Your task to perform on an android device: Add usb-c to usb-b to the cart on bestbuy.com, then select checkout. Image 0: 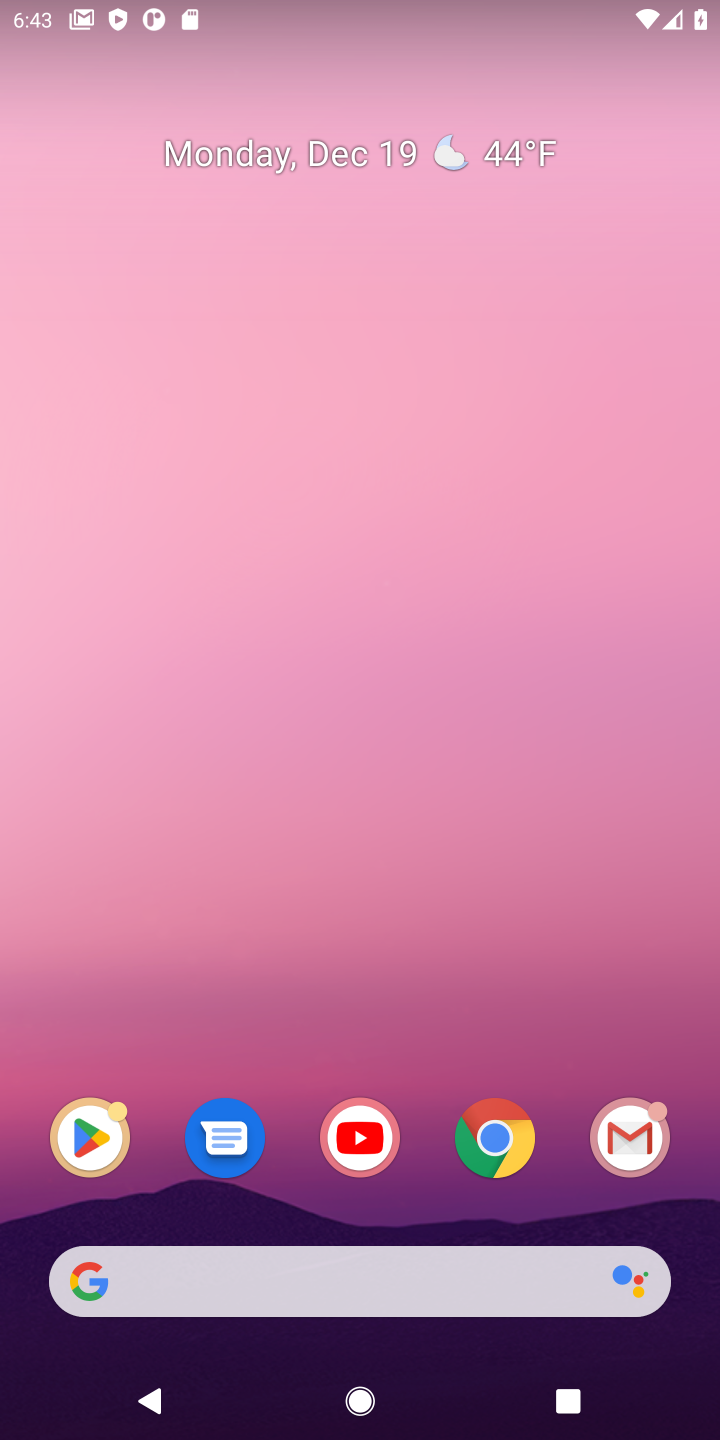
Step 0: click (469, 1129)
Your task to perform on an android device: Add usb-c to usb-b to the cart on bestbuy.com, then select checkout. Image 1: 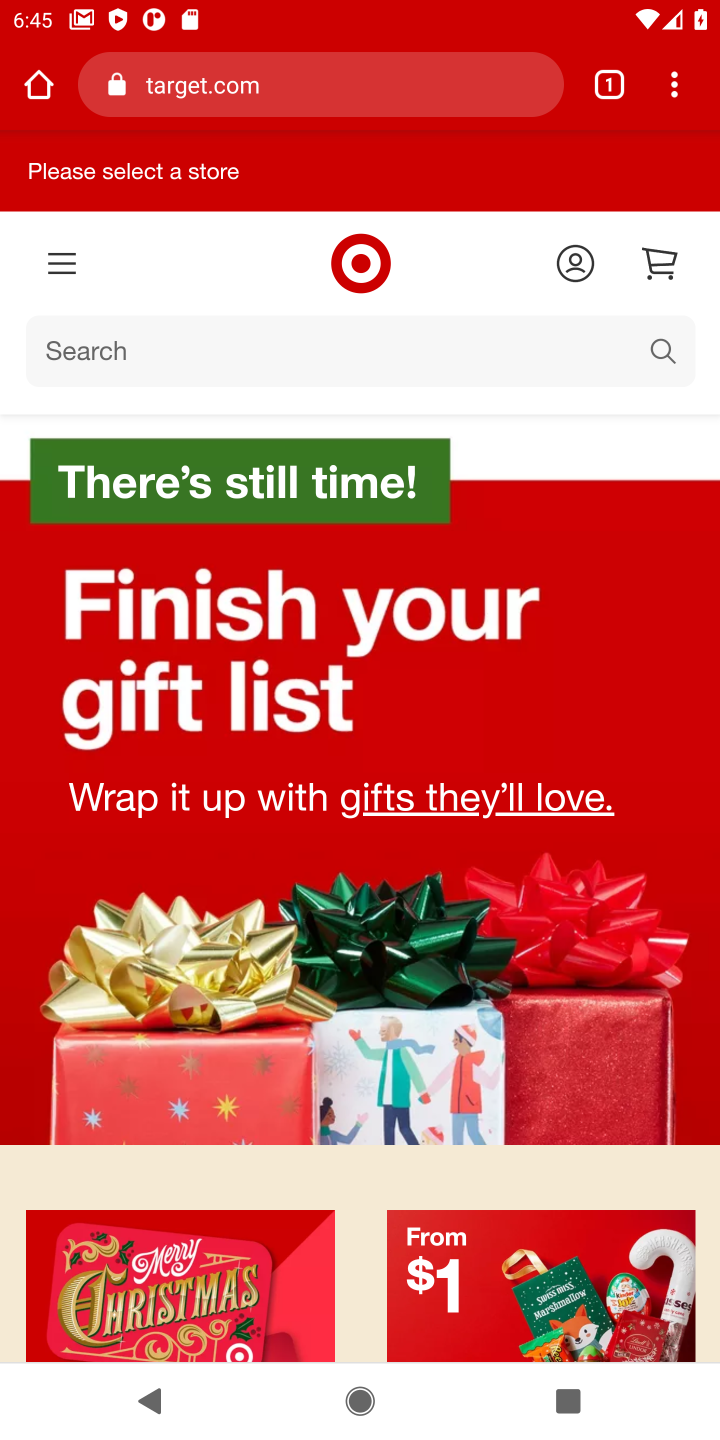
Step 1: click (492, 354)
Your task to perform on an android device: Add usb-c to usb-b to the cart on bestbuy.com, then select checkout. Image 2: 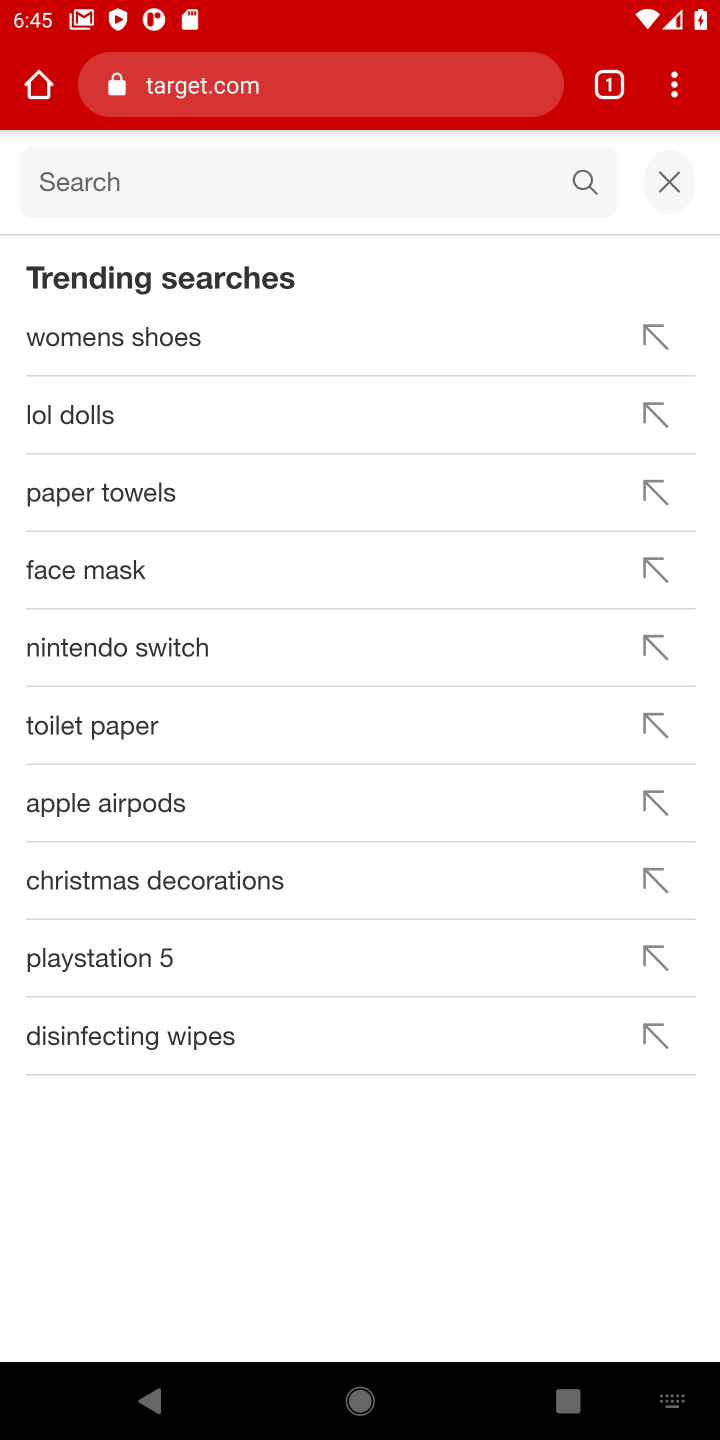
Step 2: click (321, 97)
Your task to perform on an android device: Add usb-c to usb-b to the cart on bestbuy.com, then select checkout. Image 3: 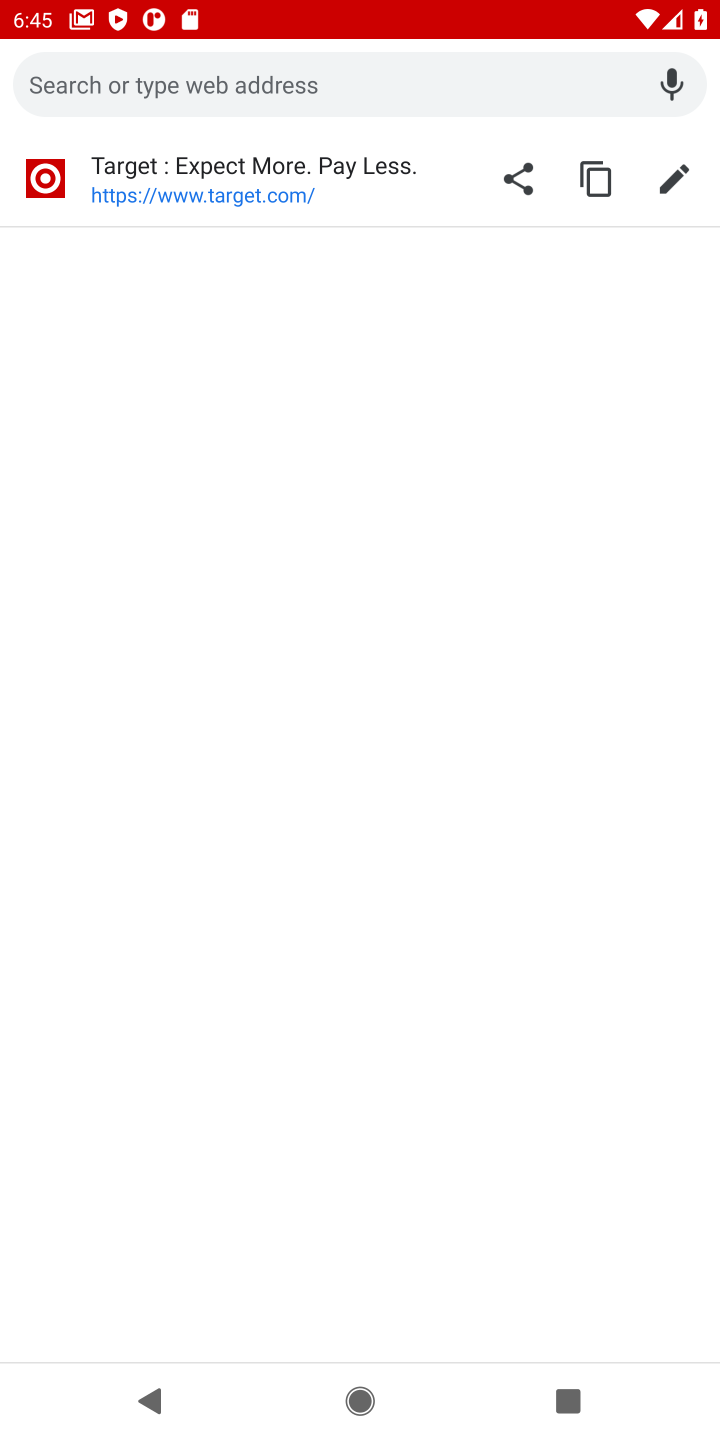
Step 3: type "bestbuy"
Your task to perform on an android device: Add usb-c to usb-b to the cart on bestbuy.com, then select checkout. Image 4: 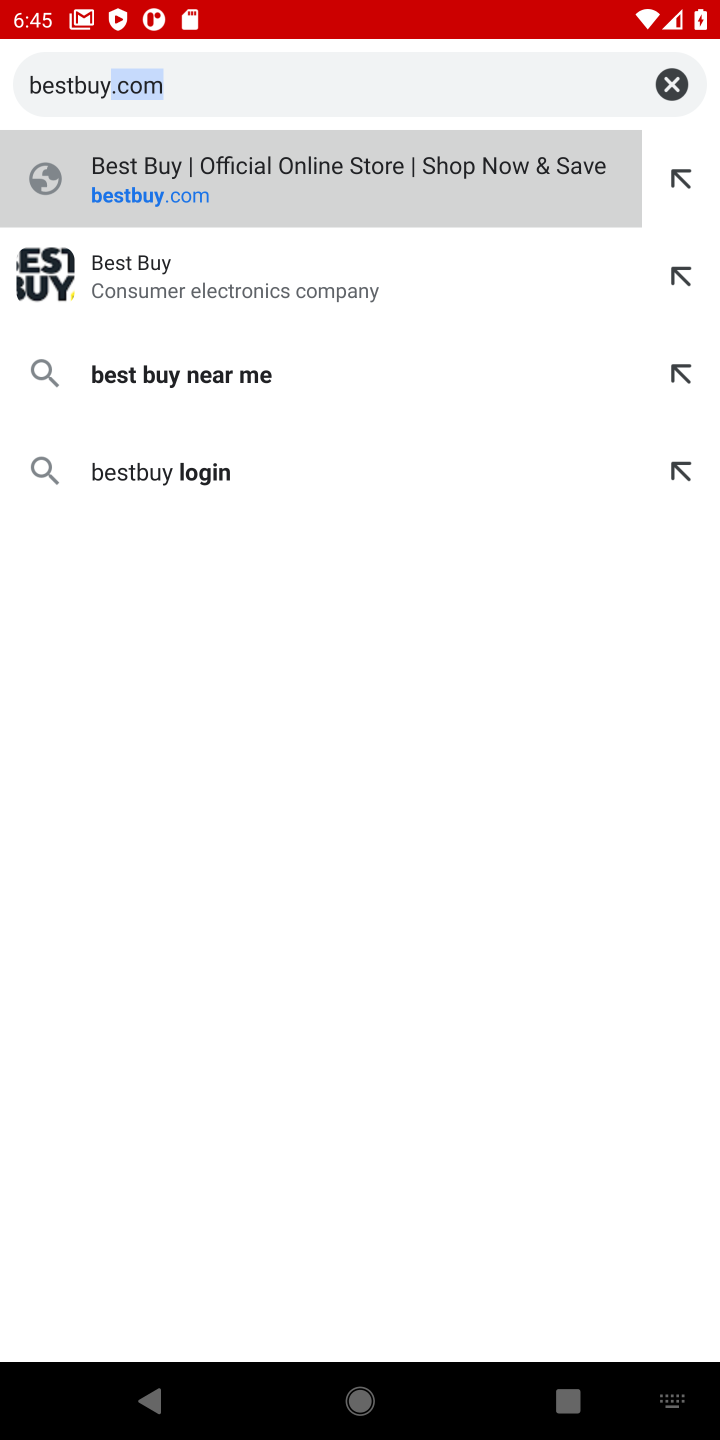
Step 4: click (425, 170)
Your task to perform on an android device: Add usb-c to usb-b to the cart on bestbuy.com, then select checkout. Image 5: 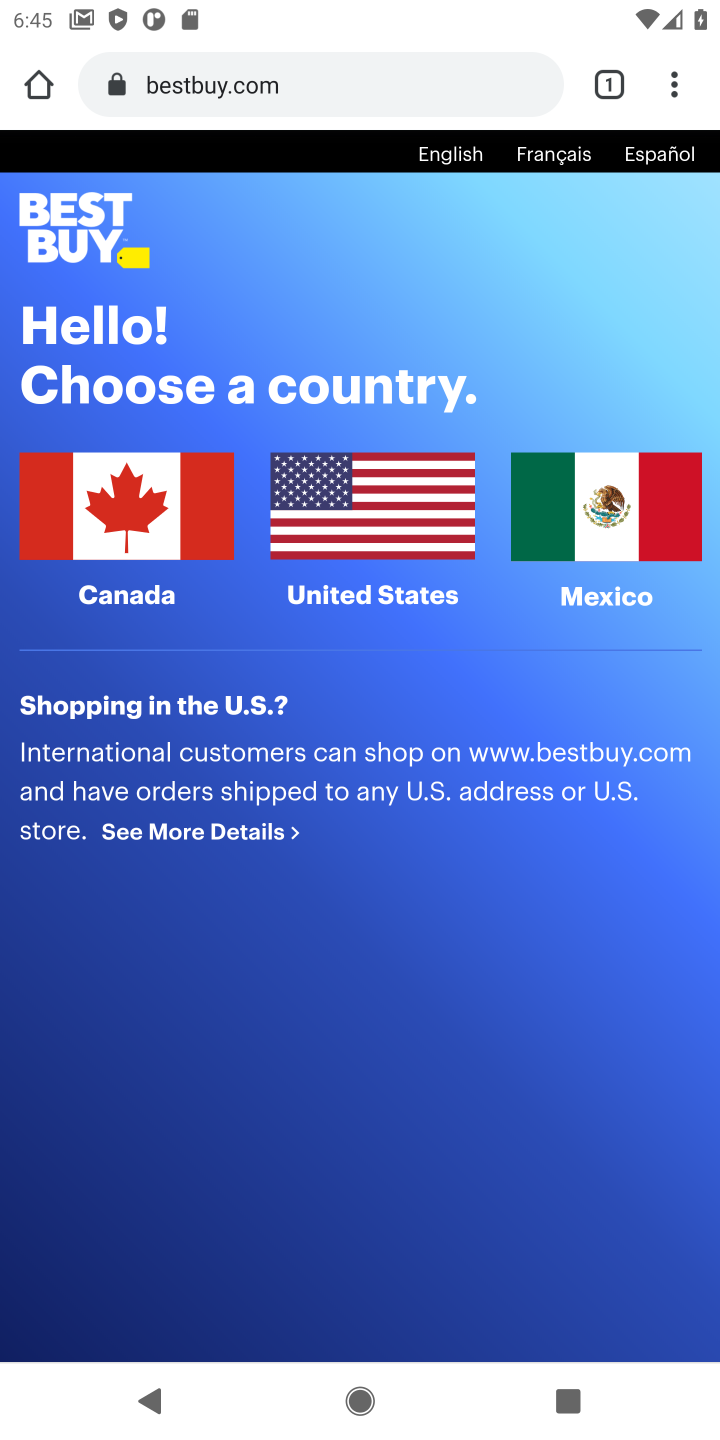
Step 5: click (364, 485)
Your task to perform on an android device: Add usb-c to usb-b to the cart on bestbuy.com, then select checkout. Image 6: 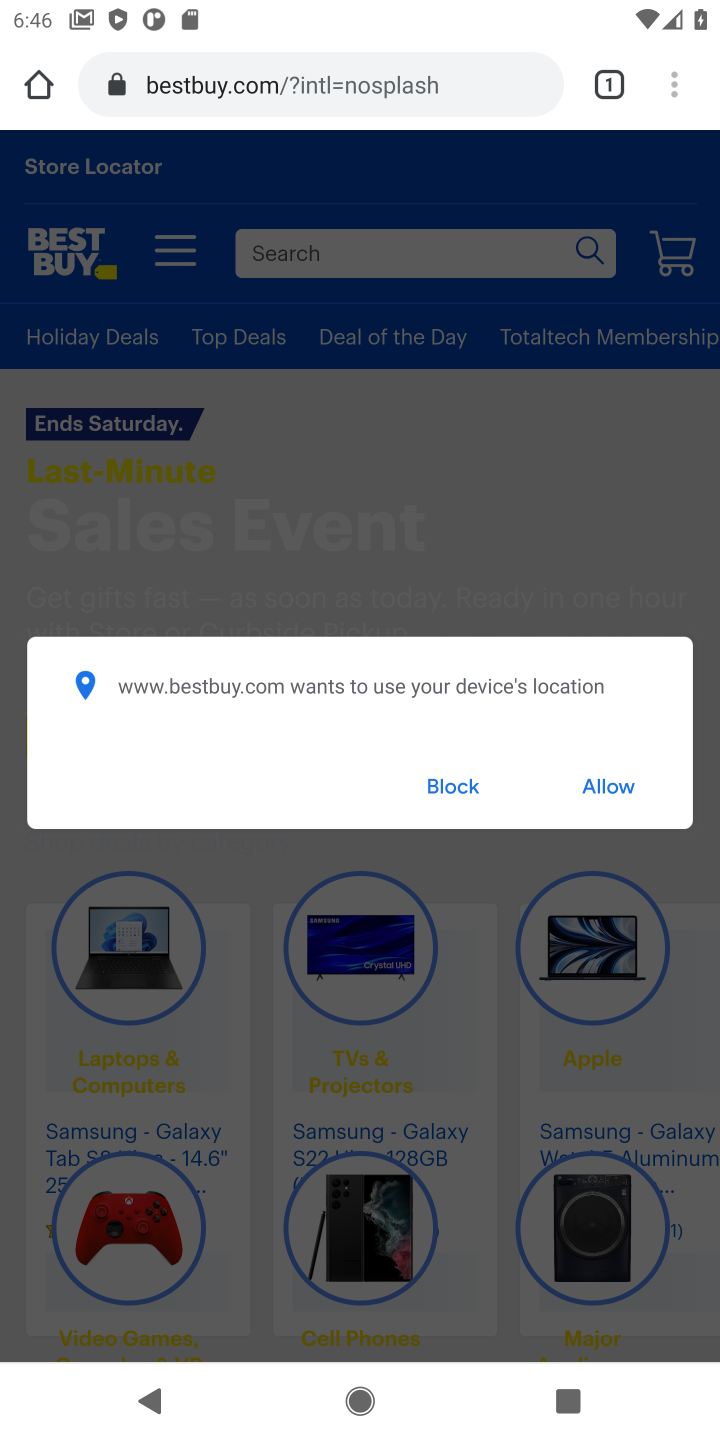
Step 6: click (445, 777)
Your task to perform on an android device: Add usb-c to usb-b to the cart on bestbuy.com, then select checkout. Image 7: 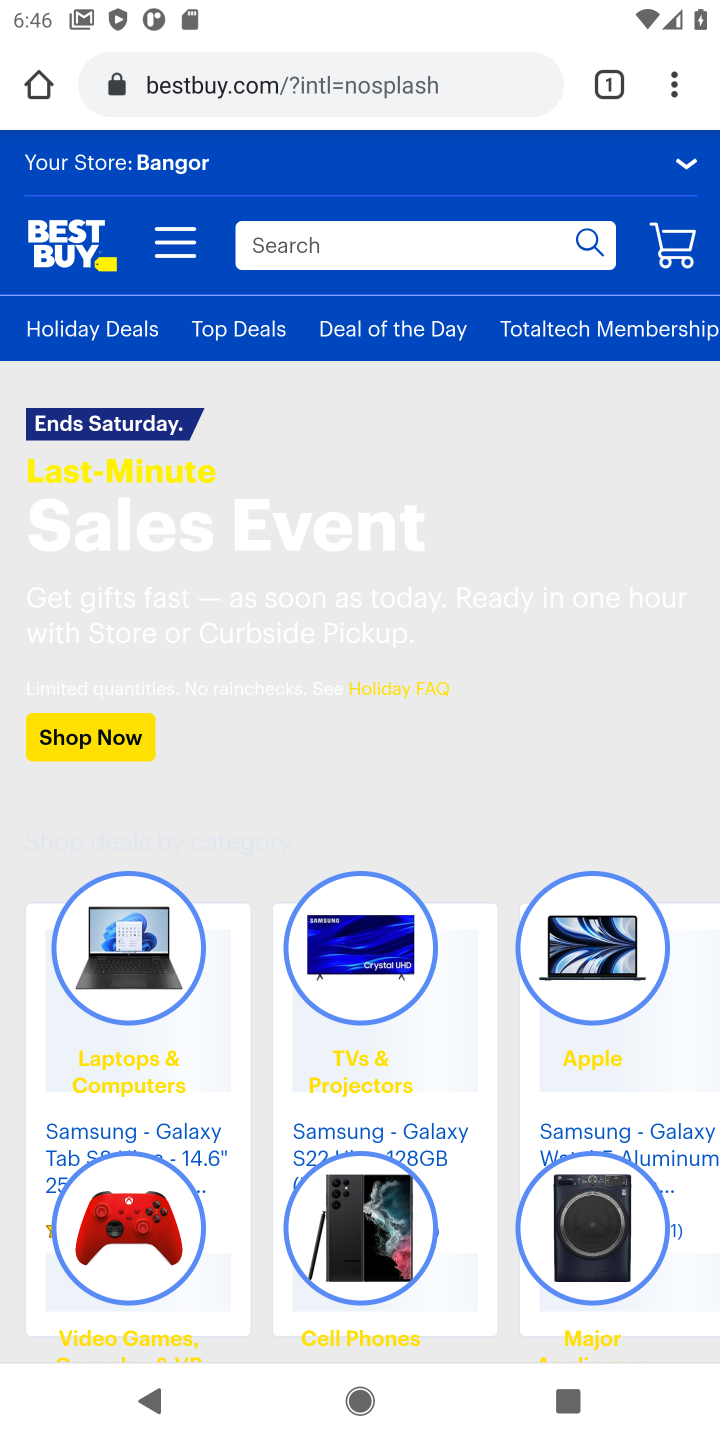
Step 7: click (368, 244)
Your task to perform on an android device: Add usb-c to usb-b to the cart on bestbuy.com, then select checkout. Image 8: 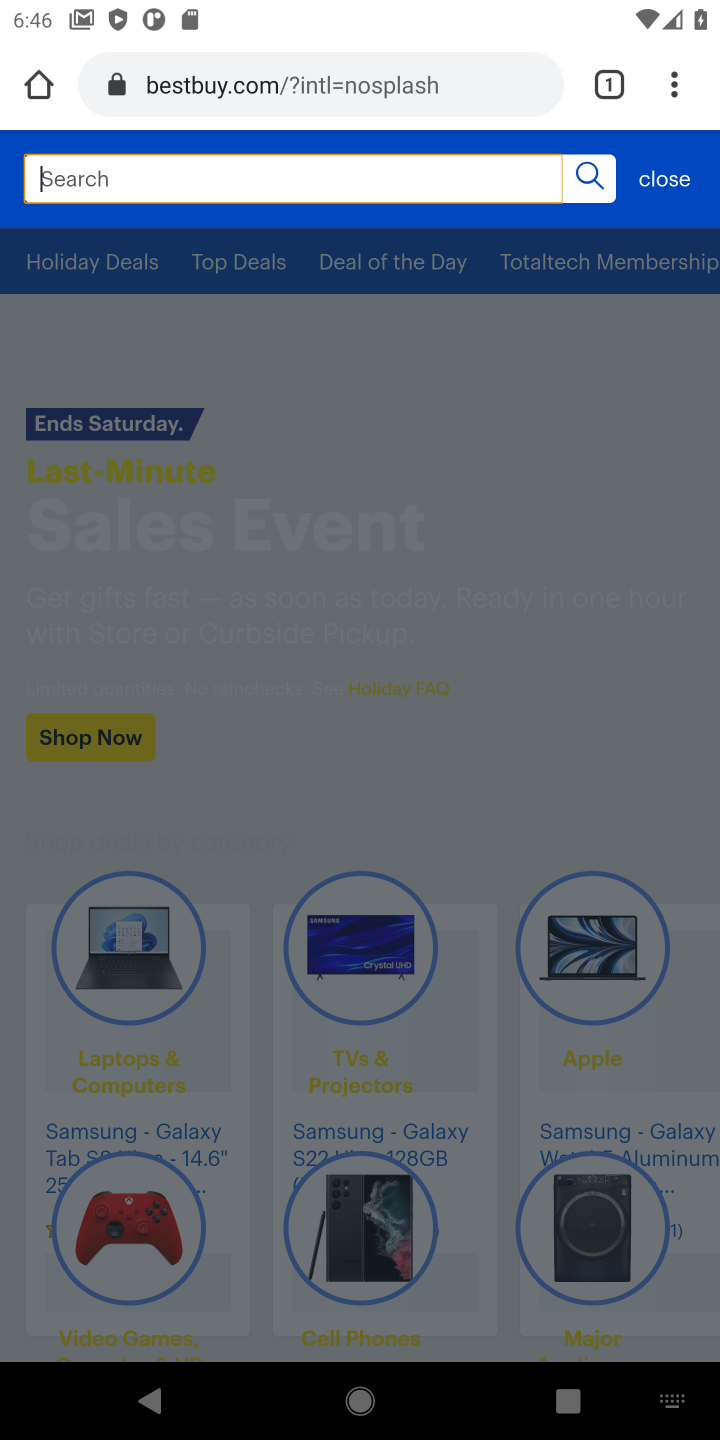
Step 8: type "usb-c to usb-b"
Your task to perform on an android device: Add usb-c to usb-b to the cart on bestbuy.com, then select checkout. Image 9: 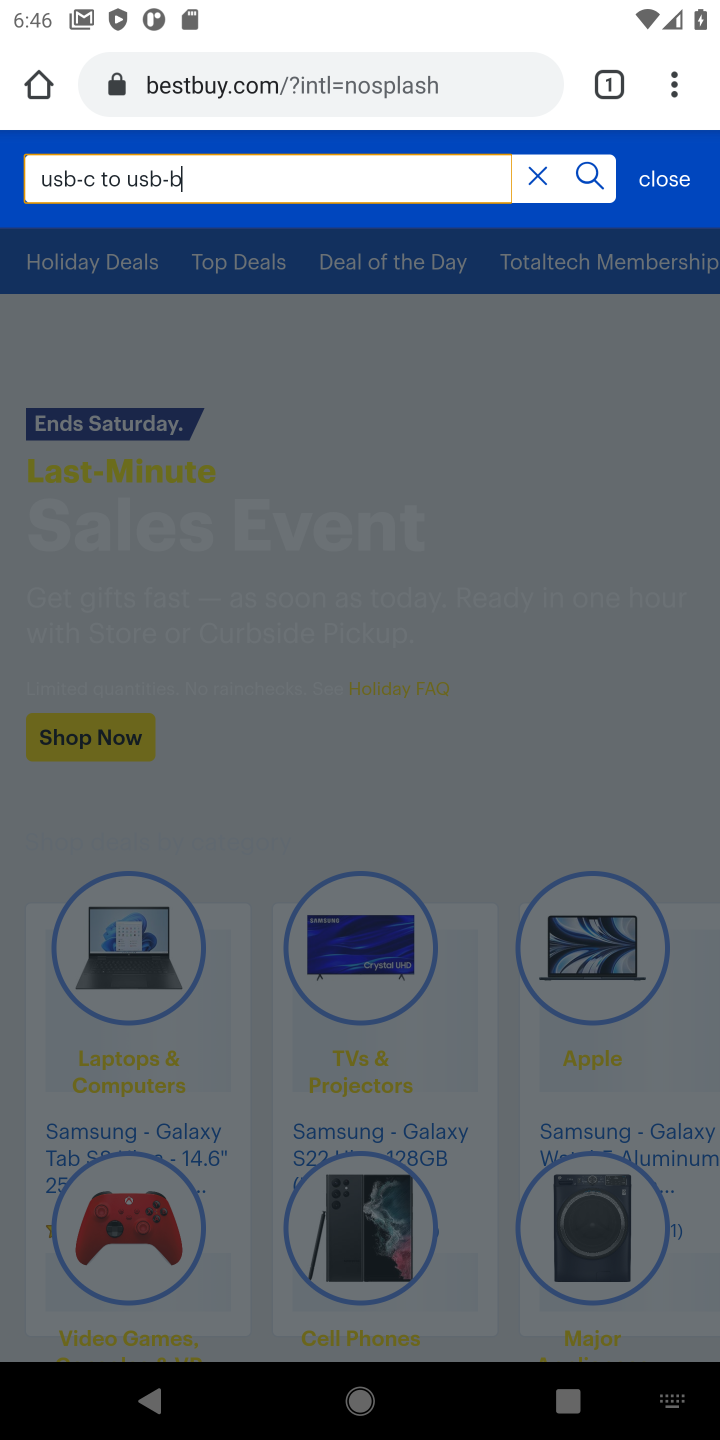
Step 9: click (586, 172)
Your task to perform on an android device: Add usb-c to usb-b to the cart on bestbuy.com, then select checkout. Image 10: 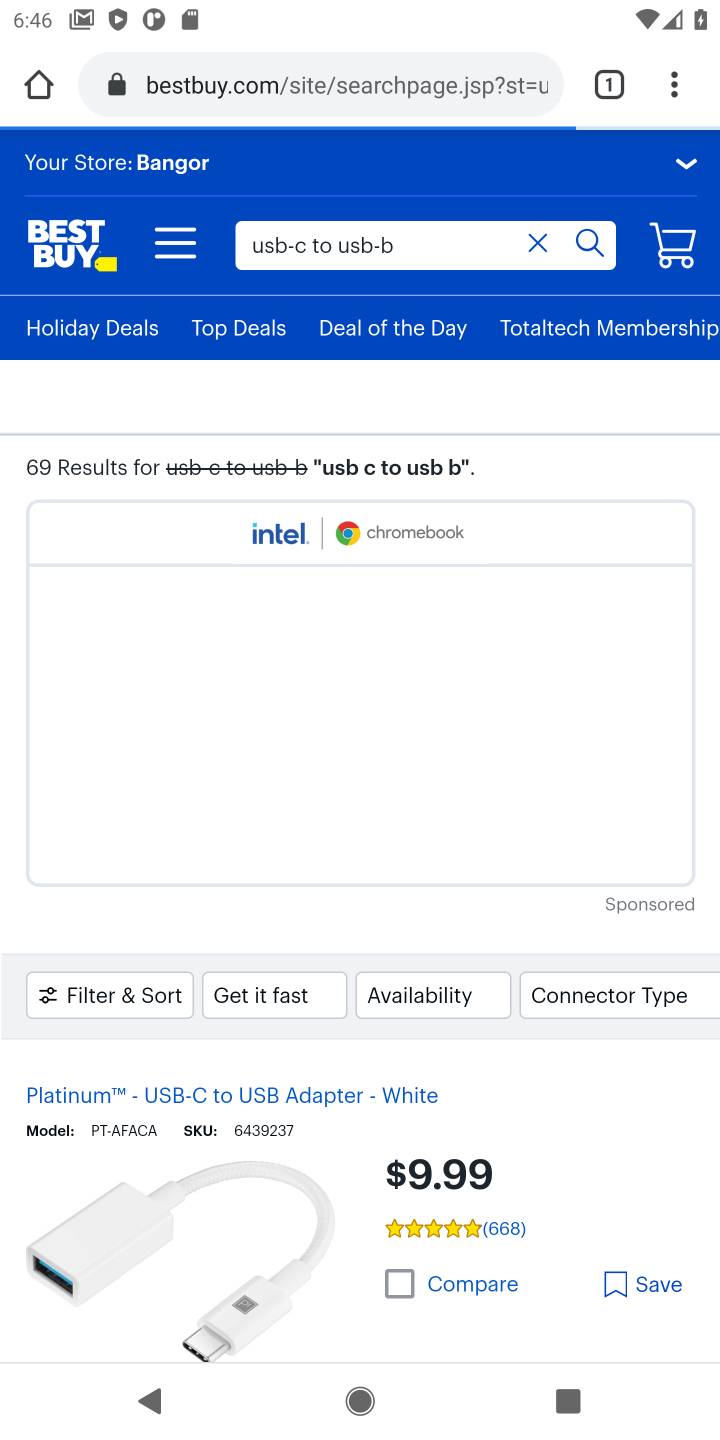
Step 10: click (549, 1202)
Your task to perform on an android device: Add usb-c to usb-b to the cart on bestbuy.com, then select checkout. Image 11: 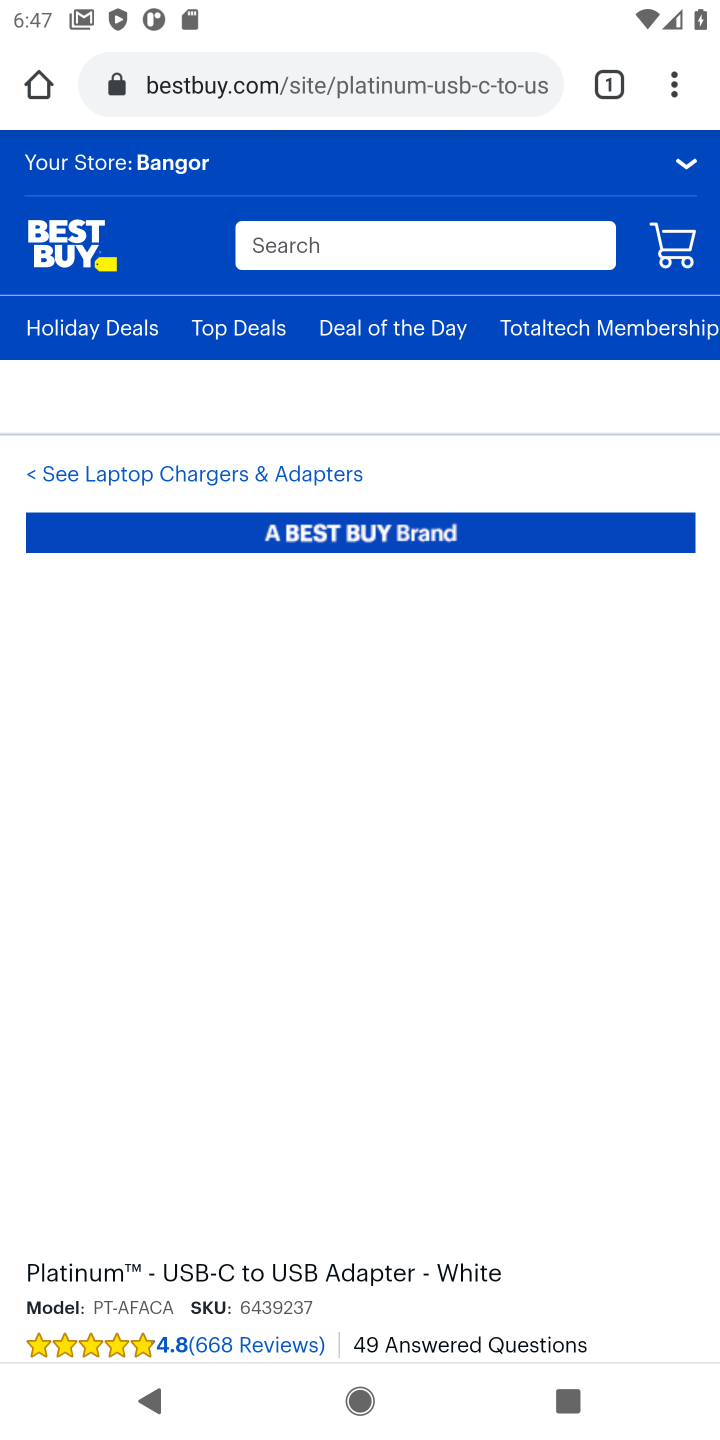
Step 11: drag from (414, 1293) to (405, 454)
Your task to perform on an android device: Add usb-c to usb-b to the cart on bestbuy.com, then select checkout. Image 12: 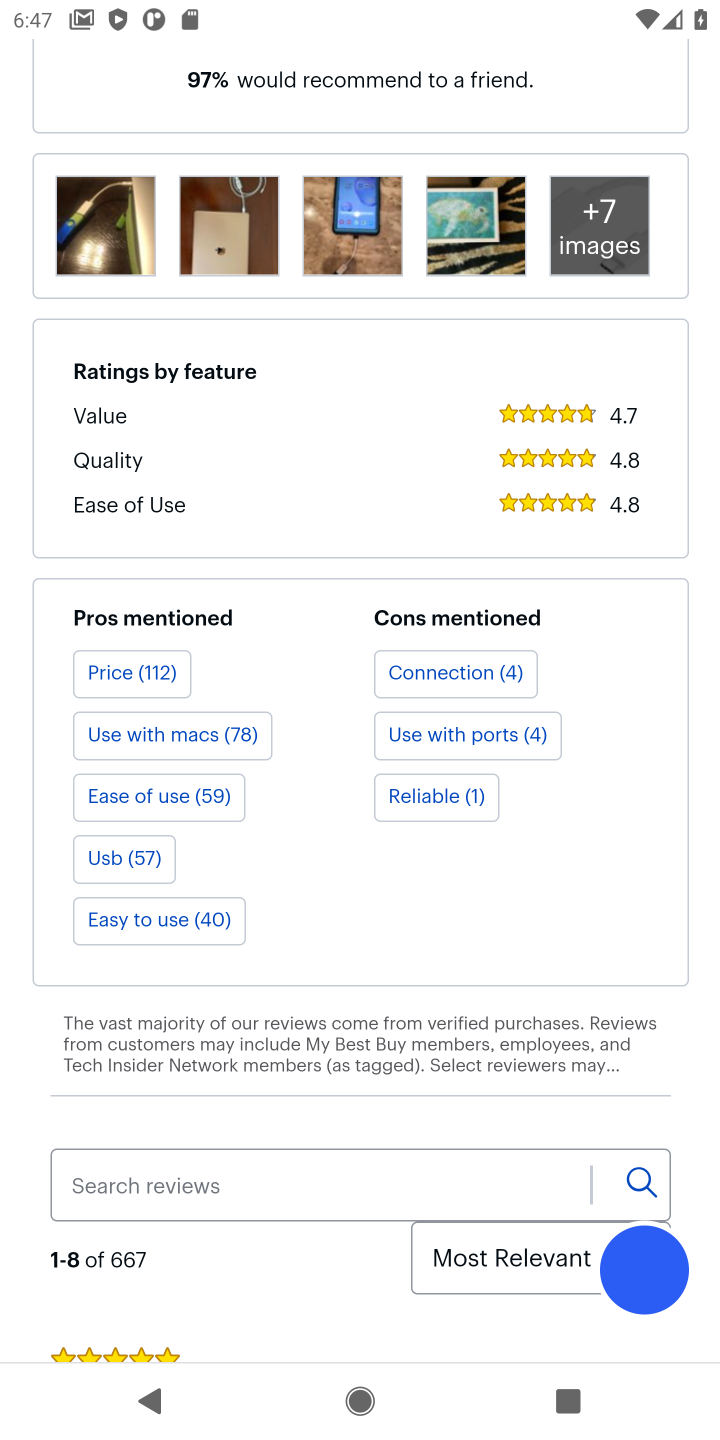
Step 12: drag from (348, 1269) to (333, 312)
Your task to perform on an android device: Add usb-c to usb-b to the cart on bestbuy.com, then select checkout. Image 13: 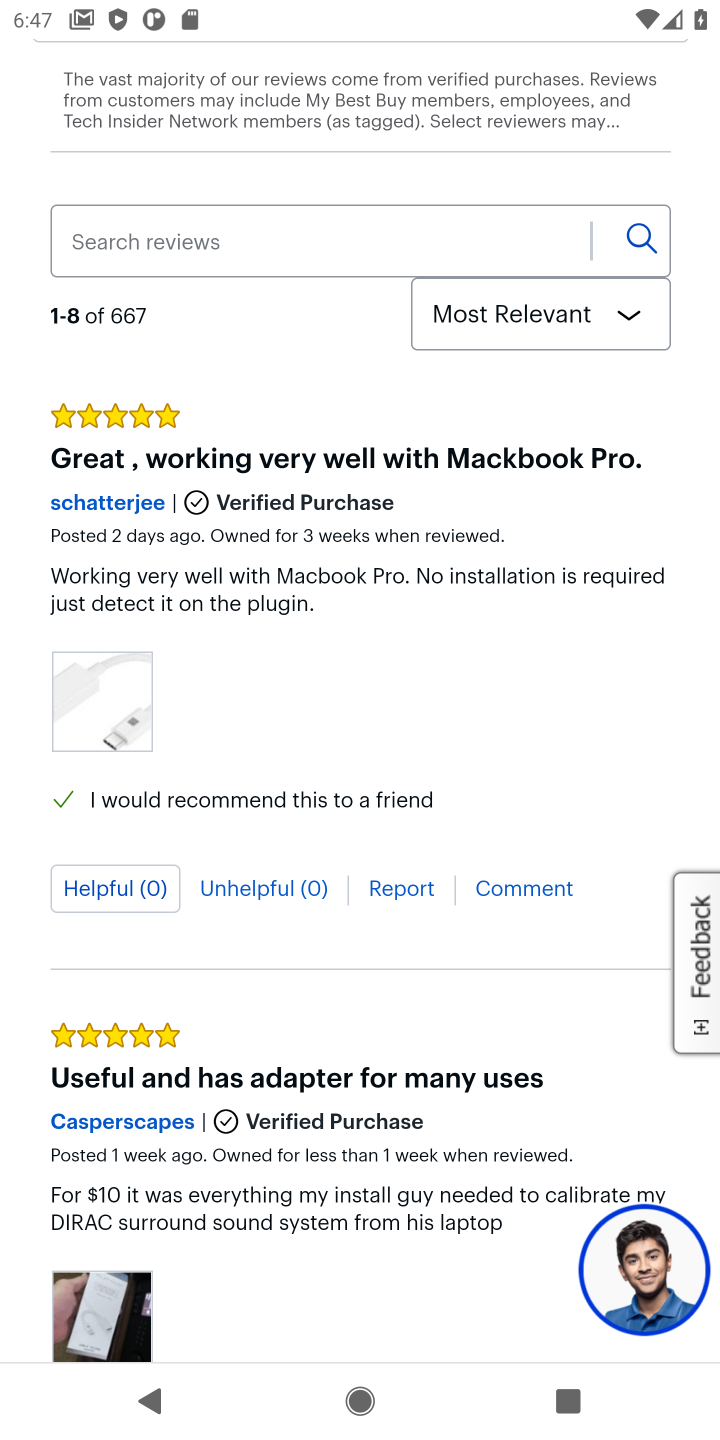
Step 13: drag from (337, 206) to (330, 1198)
Your task to perform on an android device: Add usb-c to usb-b to the cart on bestbuy.com, then select checkout. Image 14: 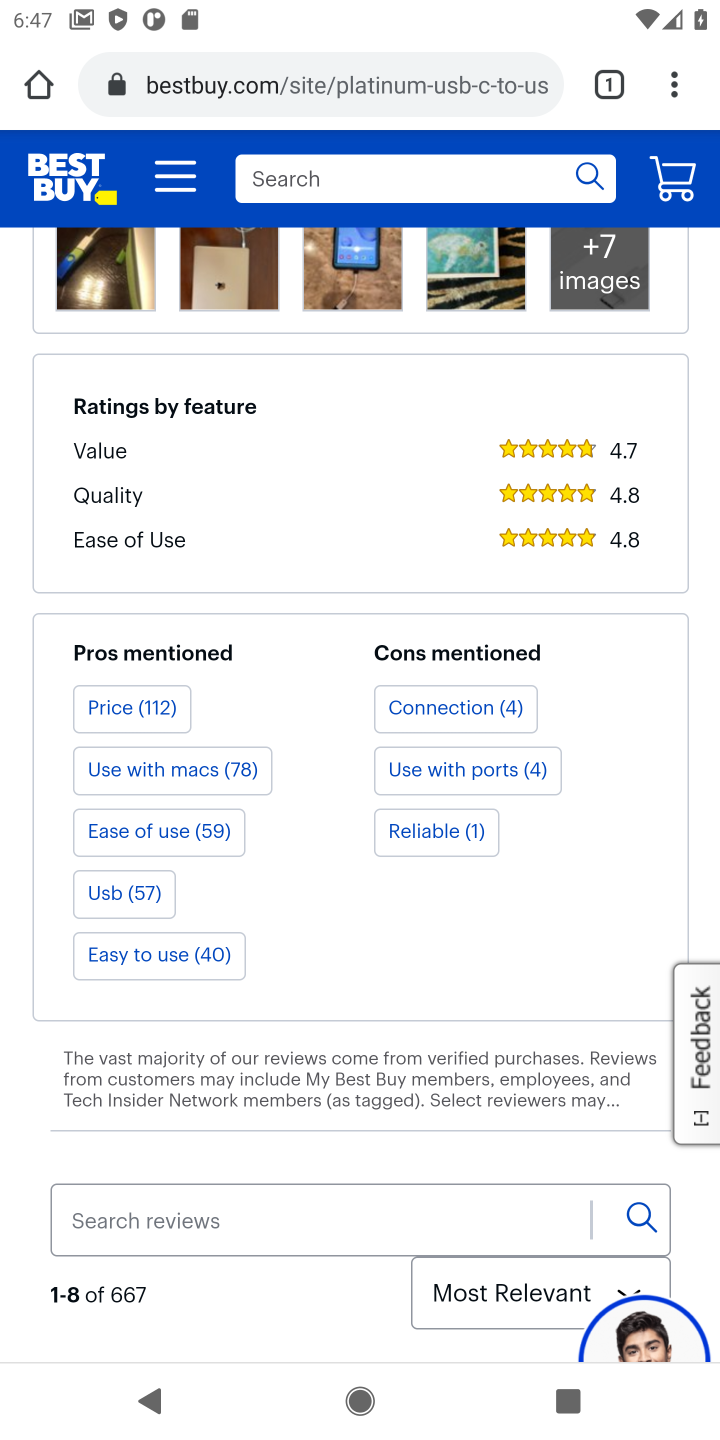
Step 14: drag from (340, 455) to (320, 1230)
Your task to perform on an android device: Add usb-c to usb-b to the cart on bestbuy.com, then select checkout. Image 15: 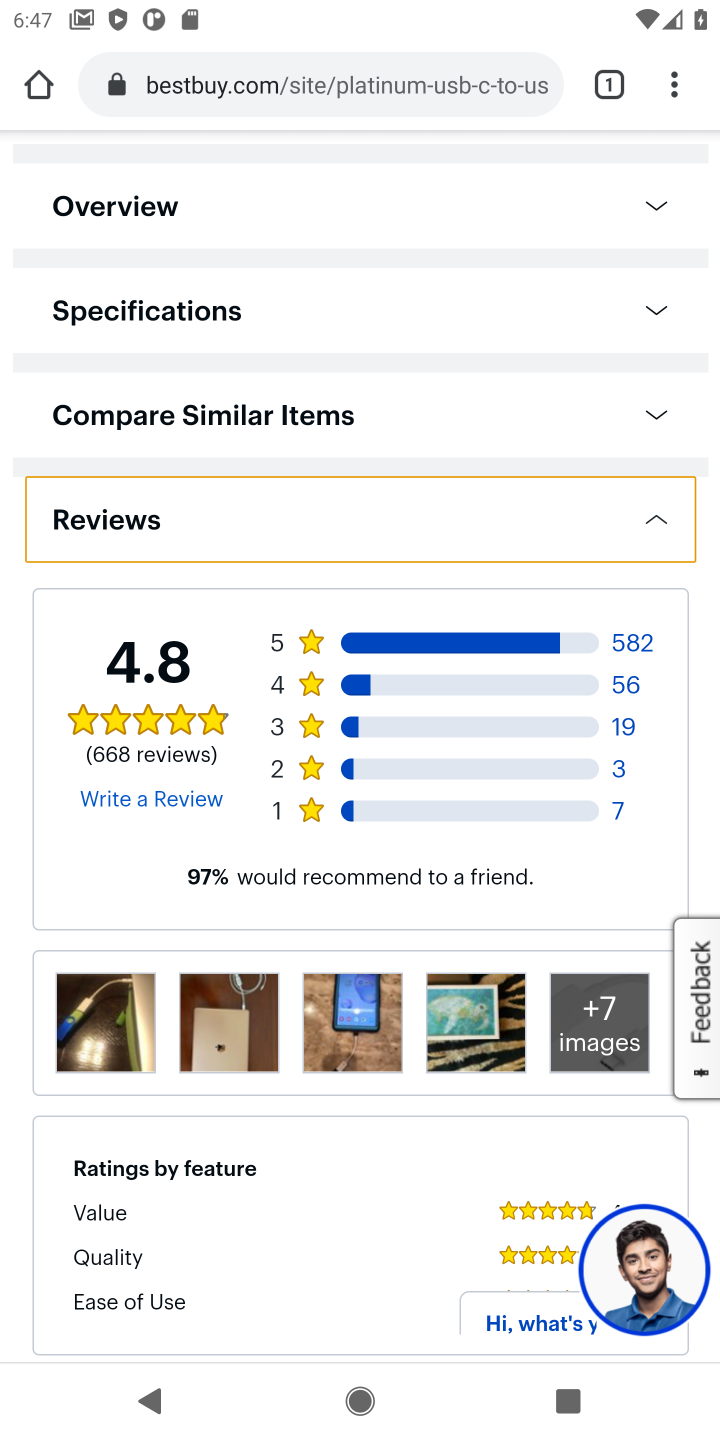
Step 15: drag from (368, 302) to (289, 1287)
Your task to perform on an android device: Add usb-c to usb-b to the cart on bestbuy.com, then select checkout. Image 16: 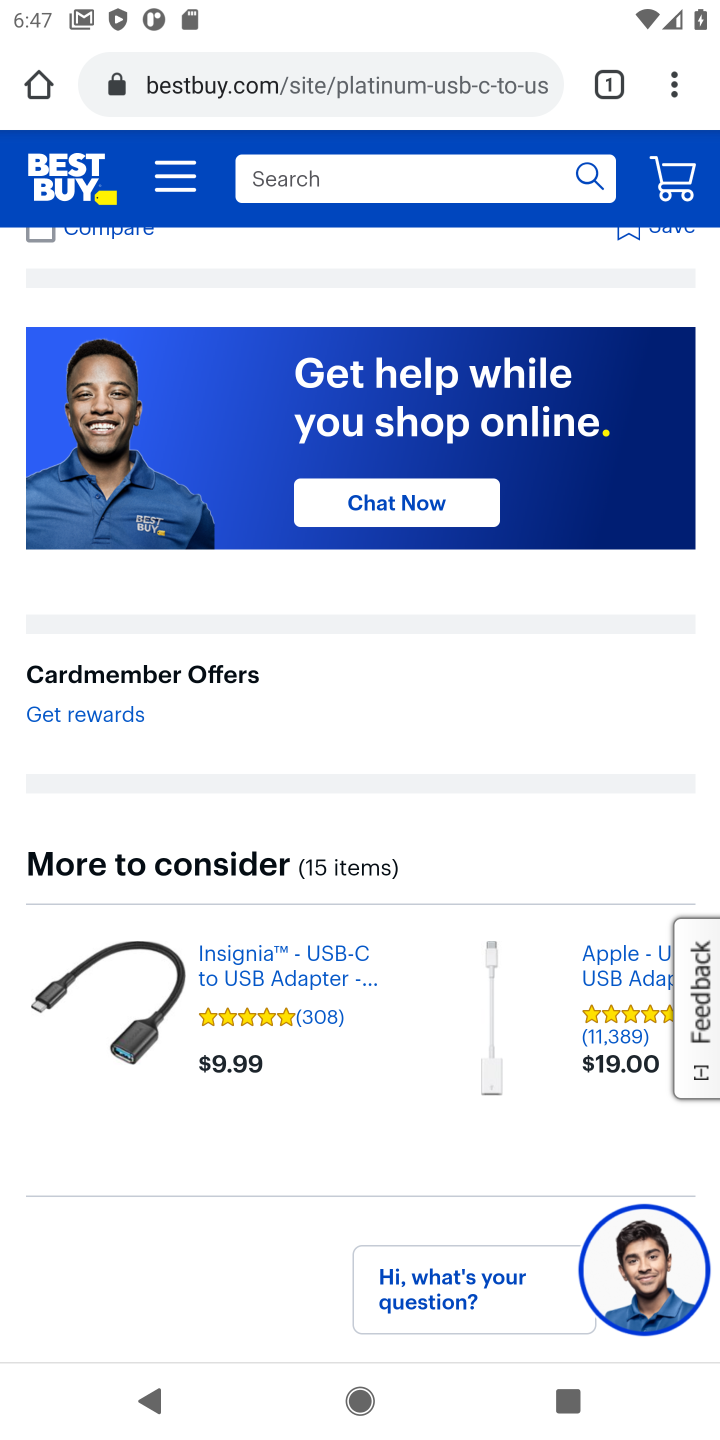
Step 16: drag from (361, 1107) to (318, 1253)
Your task to perform on an android device: Add usb-c to usb-b to the cart on bestbuy.com, then select checkout. Image 17: 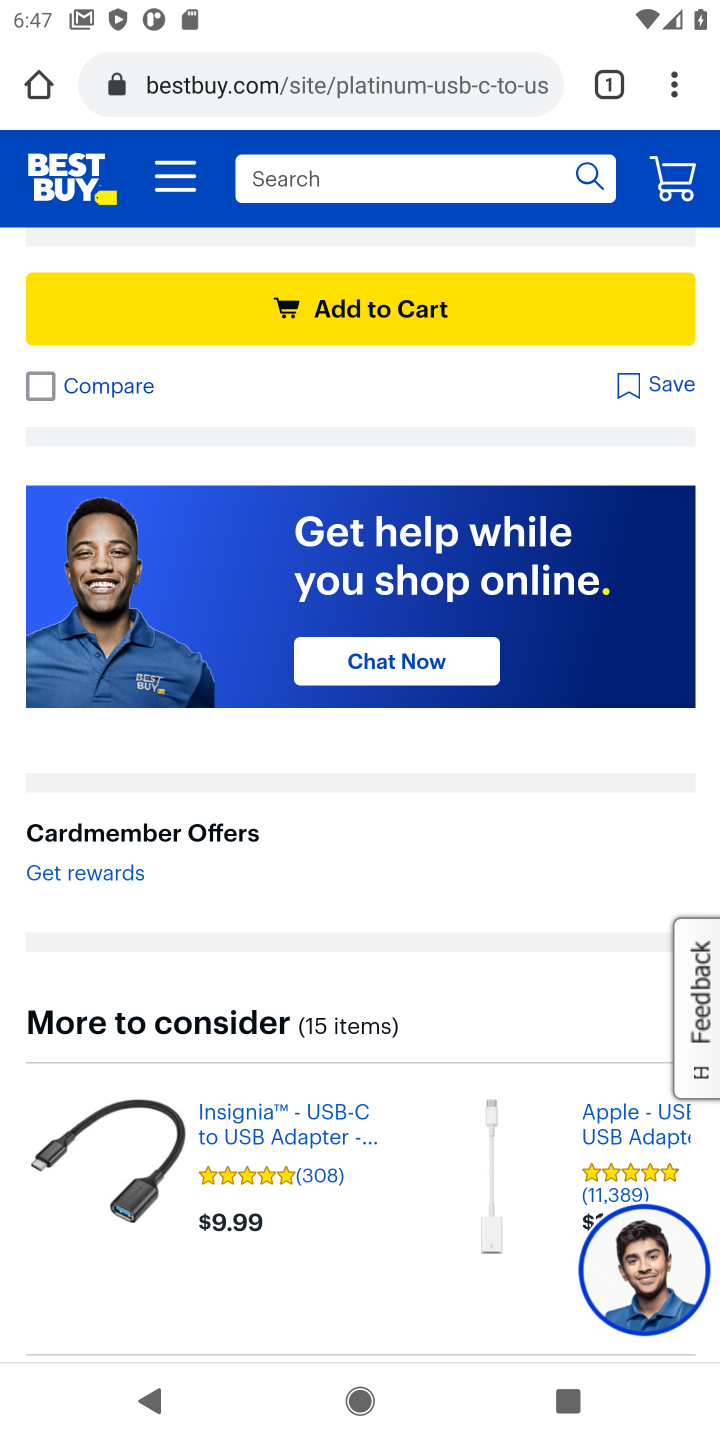
Step 17: click (434, 309)
Your task to perform on an android device: Add usb-c to usb-b to the cart on bestbuy.com, then select checkout. Image 18: 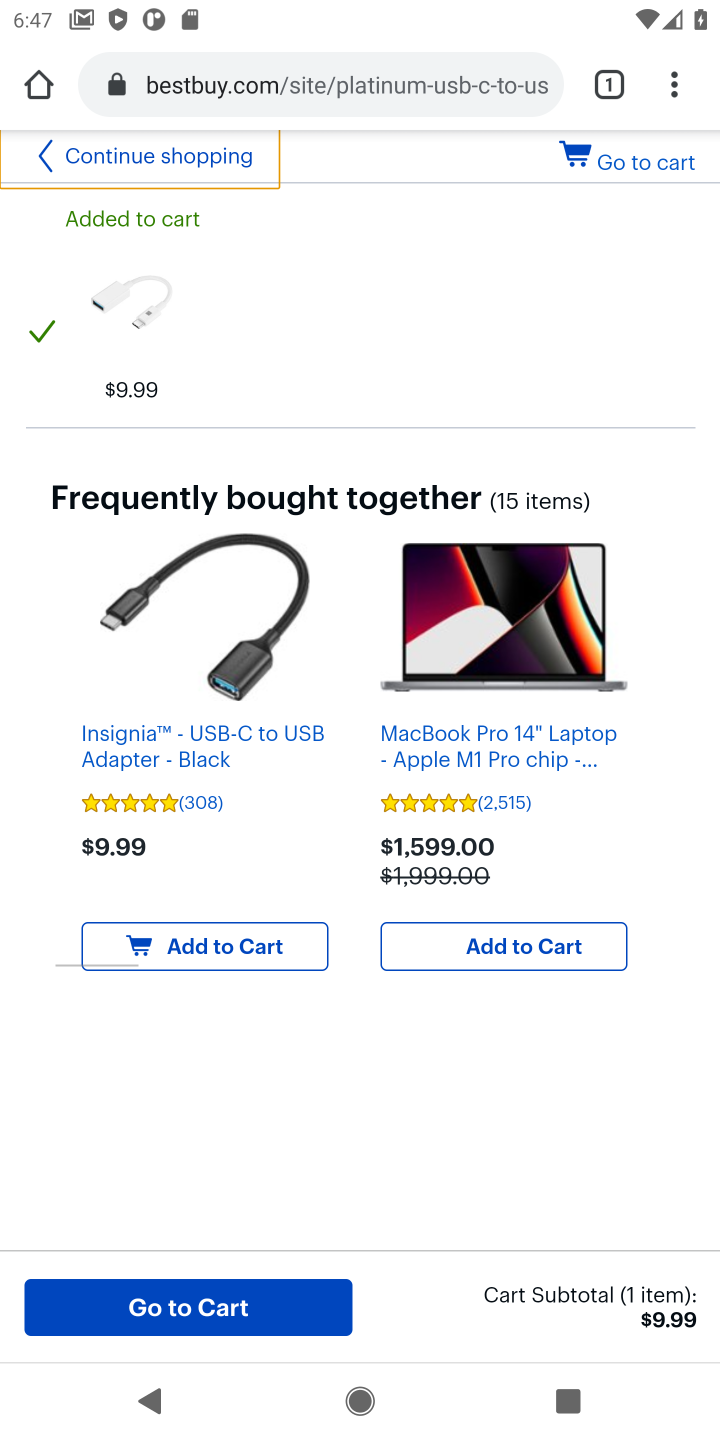
Step 18: task complete